Your task to perform on an android device: Open Yahoo.com Image 0: 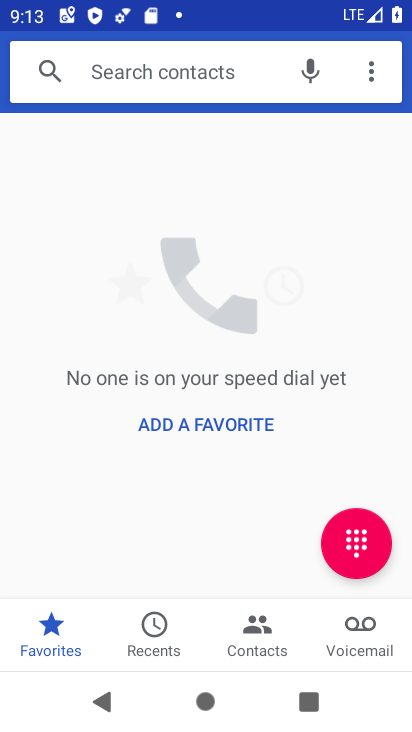
Step 0: press home button
Your task to perform on an android device: Open Yahoo.com Image 1: 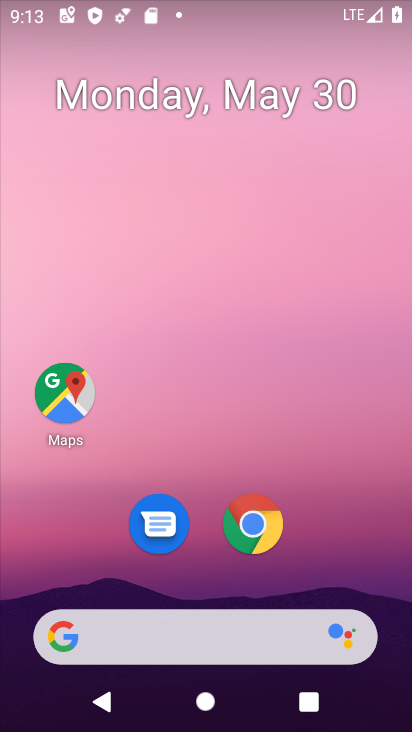
Step 1: click (246, 649)
Your task to perform on an android device: Open Yahoo.com Image 2: 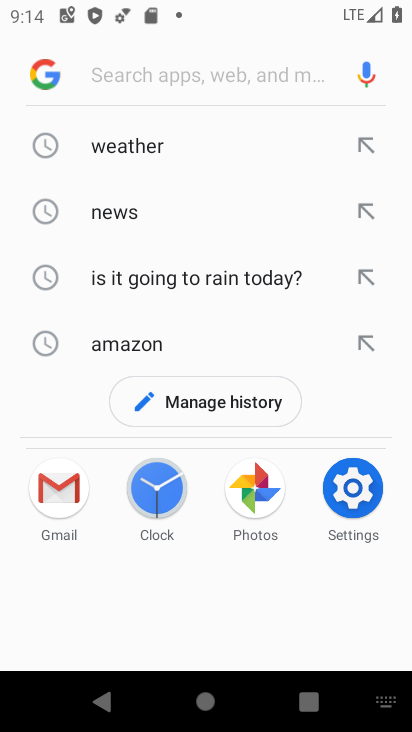
Step 2: type "yahoo.com"
Your task to perform on an android device: Open Yahoo.com Image 3: 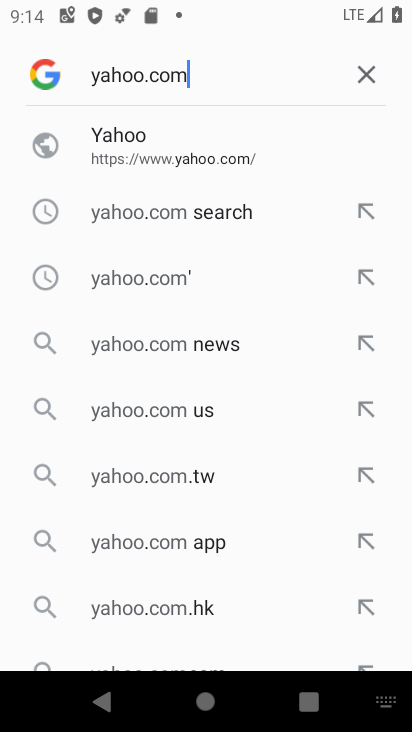
Step 3: click (107, 136)
Your task to perform on an android device: Open Yahoo.com Image 4: 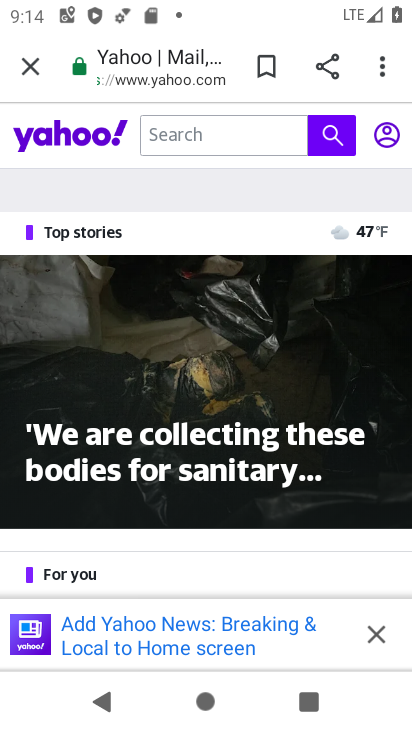
Step 4: task complete